Your task to perform on an android device: Go to ESPN.com Image 0: 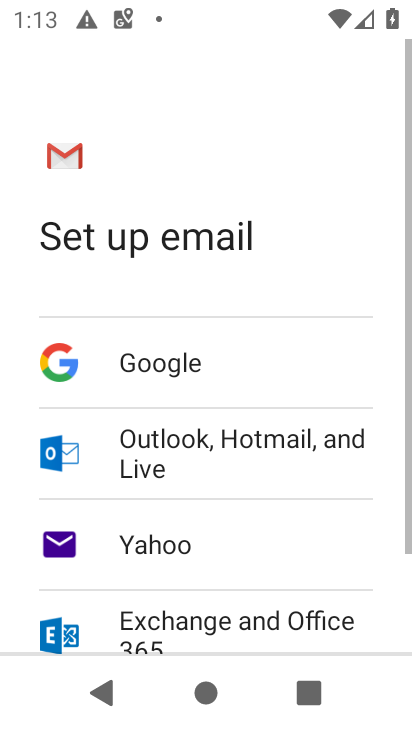
Step 0: press home button
Your task to perform on an android device: Go to ESPN.com Image 1: 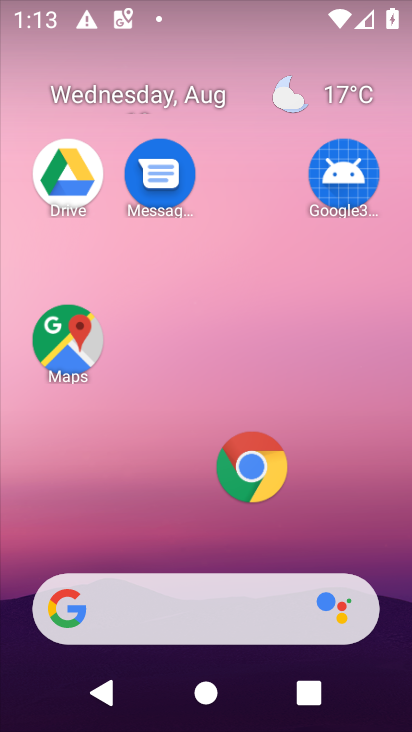
Step 1: click (249, 461)
Your task to perform on an android device: Go to ESPN.com Image 2: 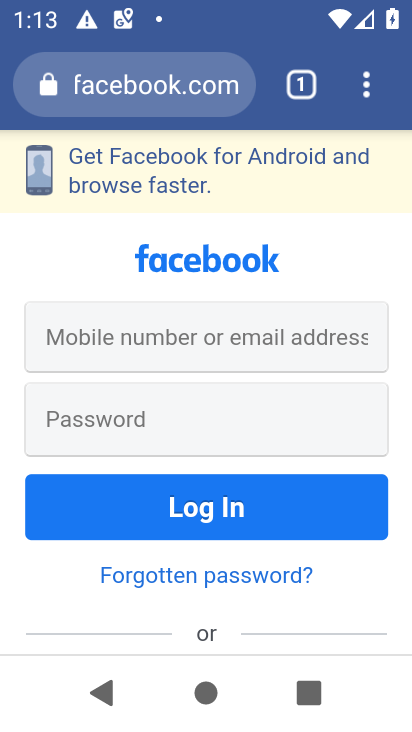
Step 2: click (294, 71)
Your task to perform on an android device: Go to ESPN.com Image 3: 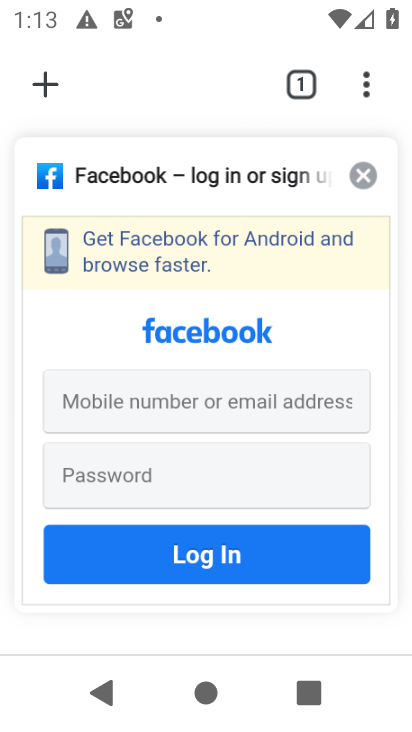
Step 3: click (304, 86)
Your task to perform on an android device: Go to ESPN.com Image 4: 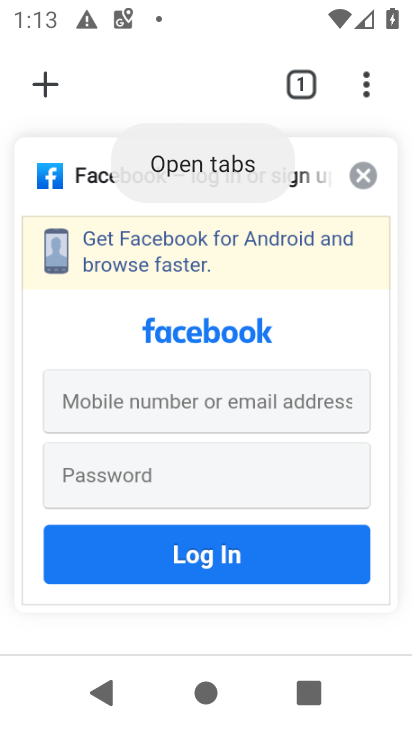
Step 4: click (54, 89)
Your task to perform on an android device: Go to ESPN.com Image 5: 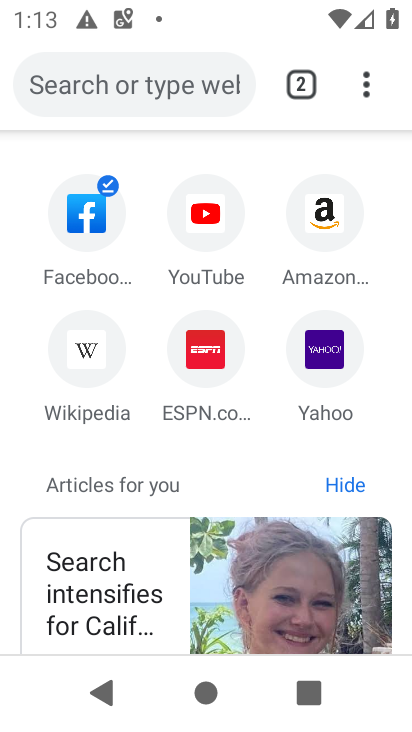
Step 5: click (215, 343)
Your task to perform on an android device: Go to ESPN.com Image 6: 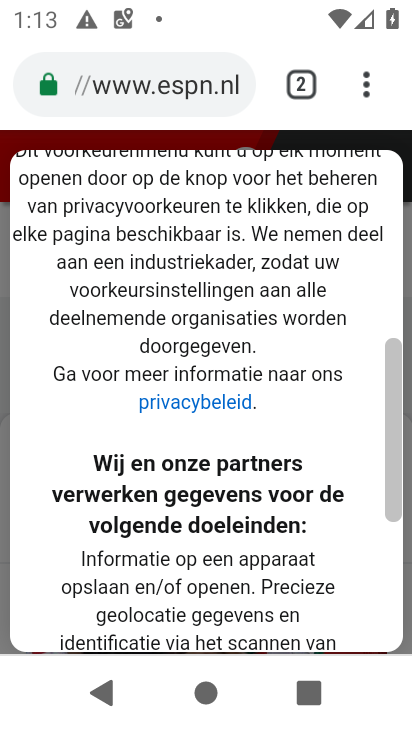
Step 6: task complete